Your task to perform on an android device: choose inbox layout in the gmail app Image 0: 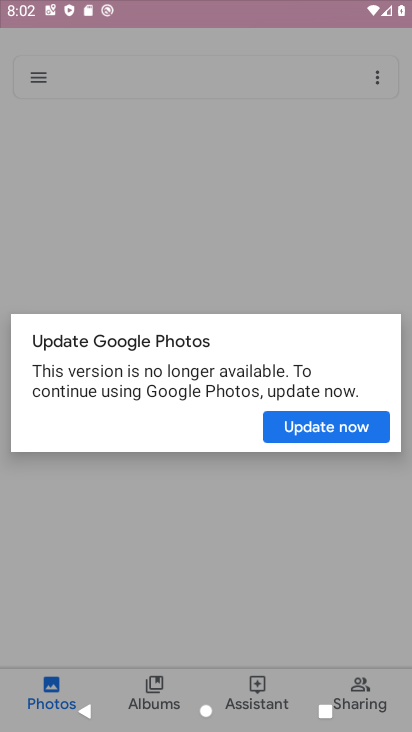
Step 0: click (185, 113)
Your task to perform on an android device: choose inbox layout in the gmail app Image 1: 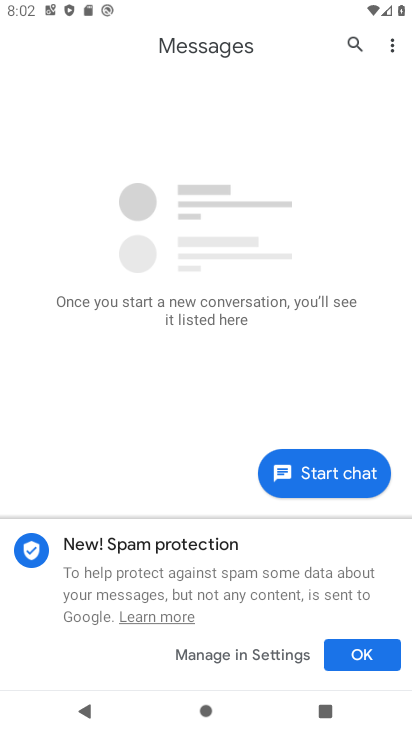
Step 1: press home button
Your task to perform on an android device: choose inbox layout in the gmail app Image 2: 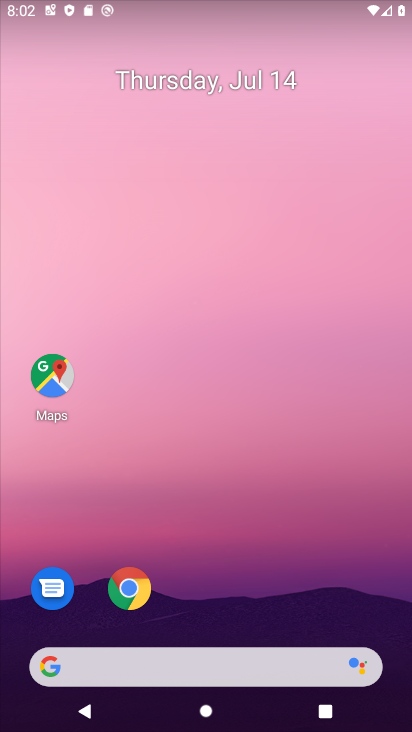
Step 2: drag from (314, 610) to (255, 141)
Your task to perform on an android device: choose inbox layout in the gmail app Image 3: 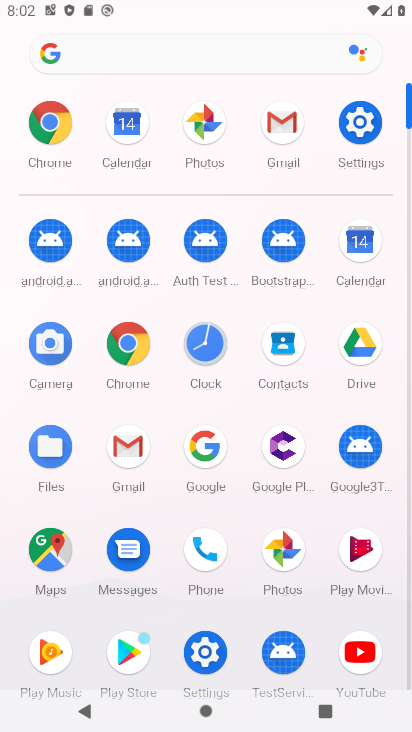
Step 3: click (277, 120)
Your task to perform on an android device: choose inbox layout in the gmail app Image 4: 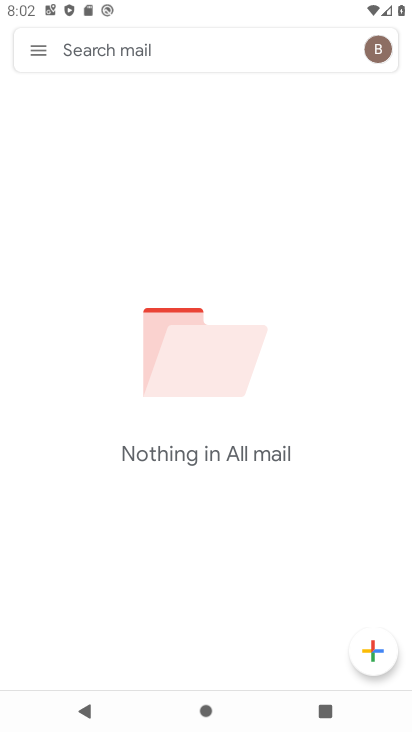
Step 4: click (37, 47)
Your task to perform on an android device: choose inbox layout in the gmail app Image 5: 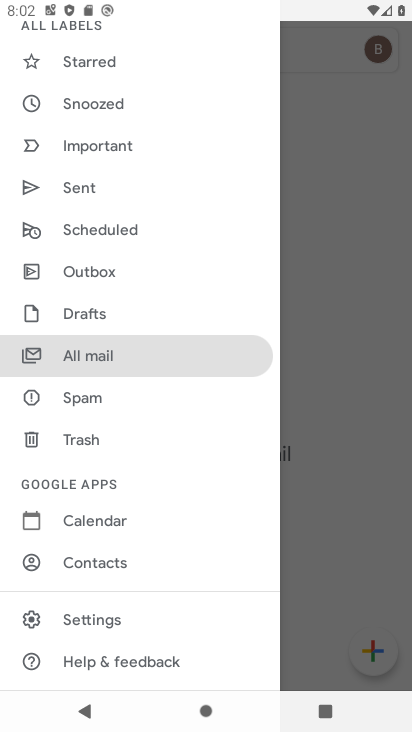
Step 5: click (101, 623)
Your task to perform on an android device: choose inbox layout in the gmail app Image 6: 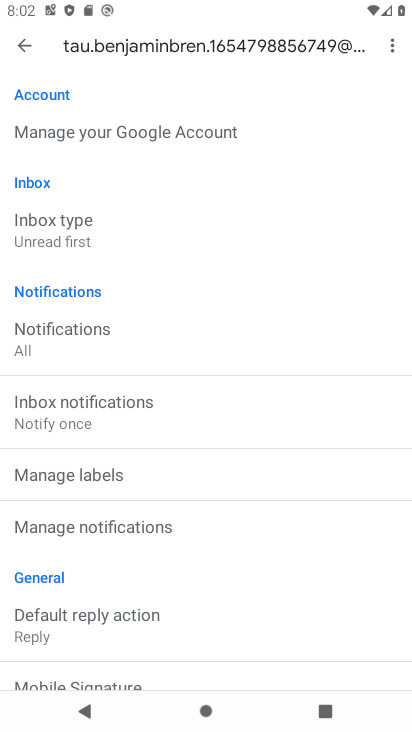
Step 6: click (74, 230)
Your task to perform on an android device: choose inbox layout in the gmail app Image 7: 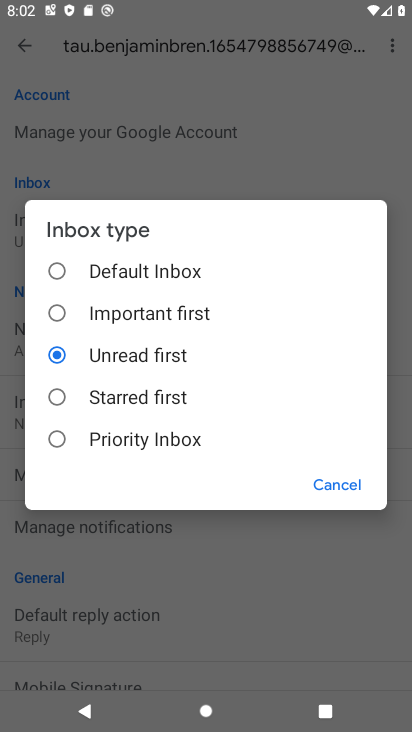
Step 7: task complete